Your task to perform on an android device: read, delete, or share a saved page in the chrome app Image 0: 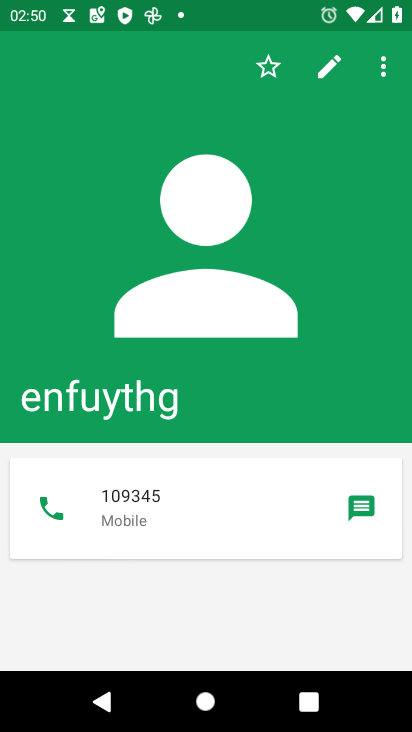
Step 0: press home button
Your task to perform on an android device: read, delete, or share a saved page in the chrome app Image 1: 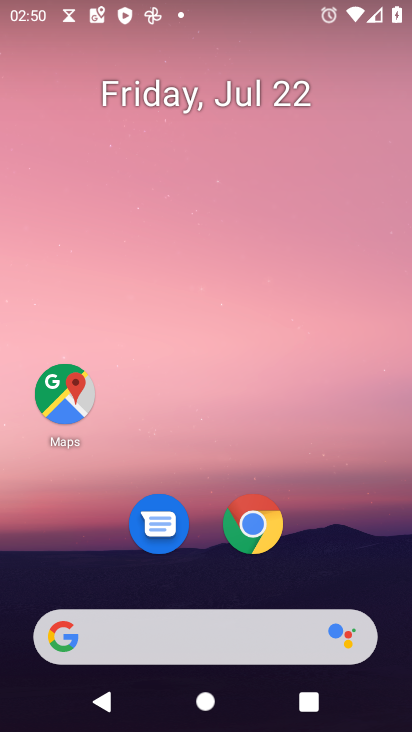
Step 1: click (245, 534)
Your task to perform on an android device: read, delete, or share a saved page in the chrome app Image 2: 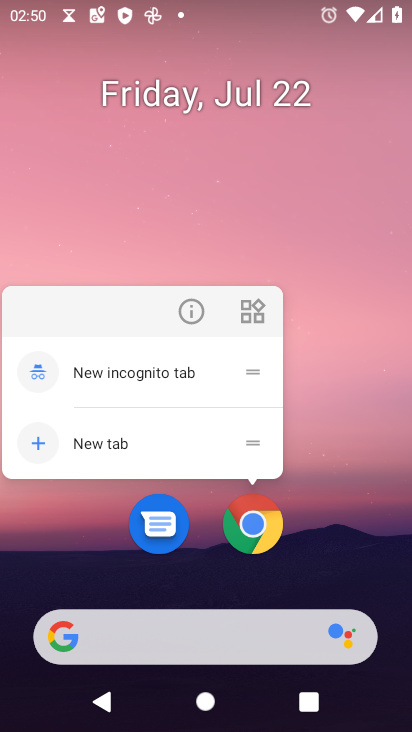
Step 2: click (253, 527)
Your task to perform on an android device: read, delete, or share a saved page in the chrome app Image 3: 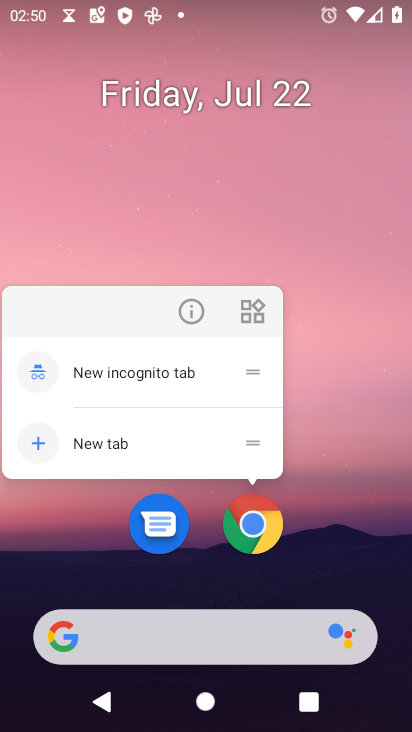
Step 3: click (245, 529)
Your task to perform on an android device: read, delete, or share a saved page in the chrome app Image 4: 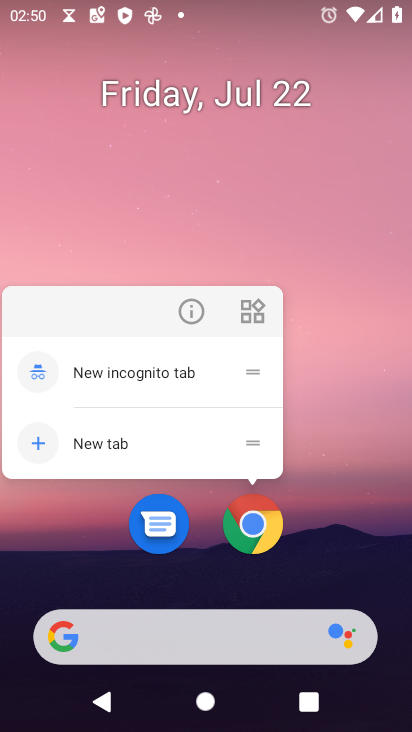
Step 4: click (274, 525)
Your task to perform on an android device: read, delete, or share a saved page in the chrome app Image 5: 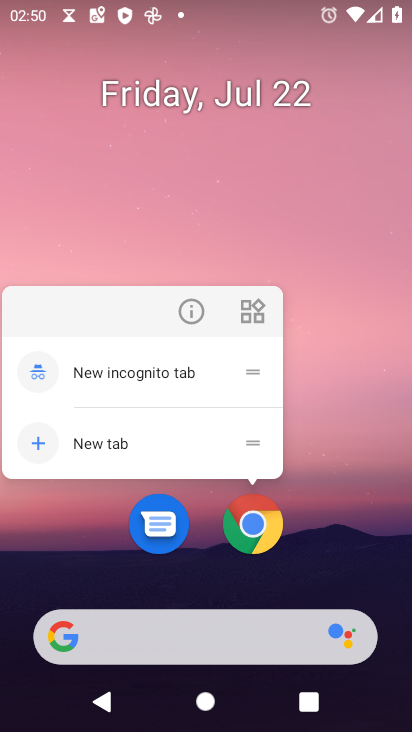
Step 5: click (262, 519)
Your task to perform on an android device: read, delete, or share a saved page in the chrome app Image 6: 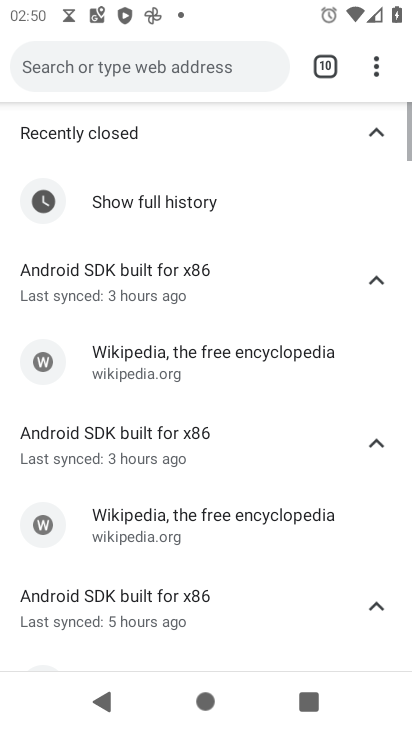
Step 6: drag from (380, 71) to (151, 425)
Your task to perform on an android device: read, delete, or share a saved page in the chrome app Image 7: 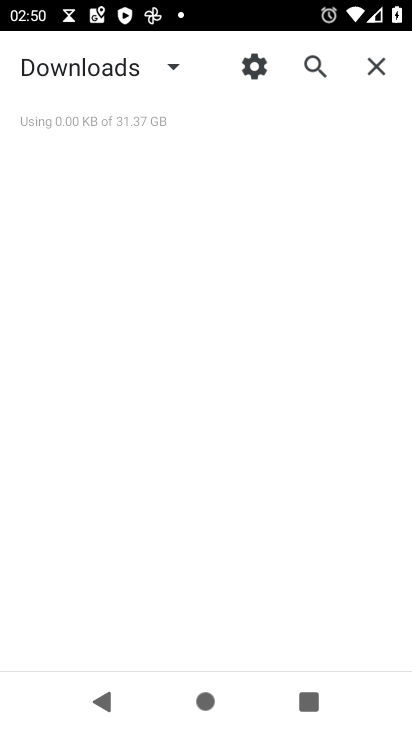
Step 7: click (167, 66)
Your task to perform on an android device: read, delete, or share a saved page in the chrome app Image 8: 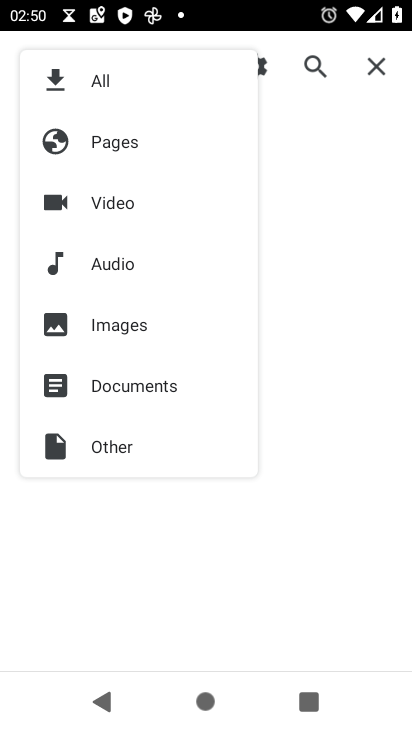
Step 8: click (105, 147)
Your task to perform on an android device: read, delete, or share a saved page in the chrome app Image 9: 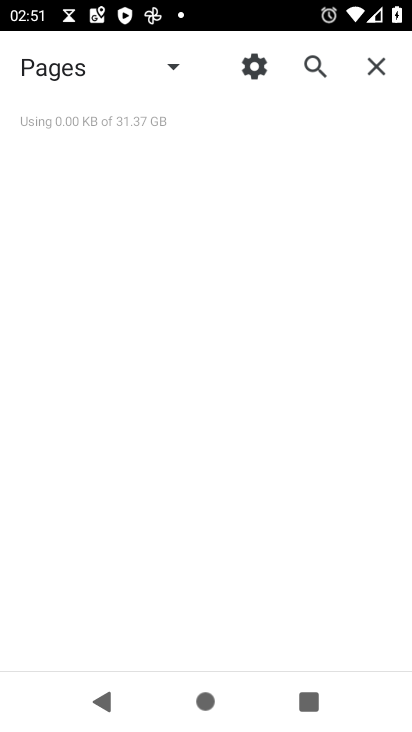
Step 9: task complete